Your task to perform on an android device: turn smart compose on in the gmail app Image 0: 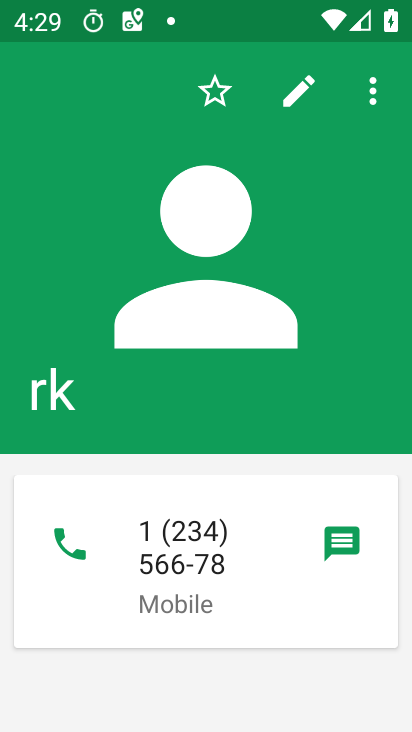
Step 0: press back button
Your task to perform on an android device: turn smart compose on in the gmail app Image 1: 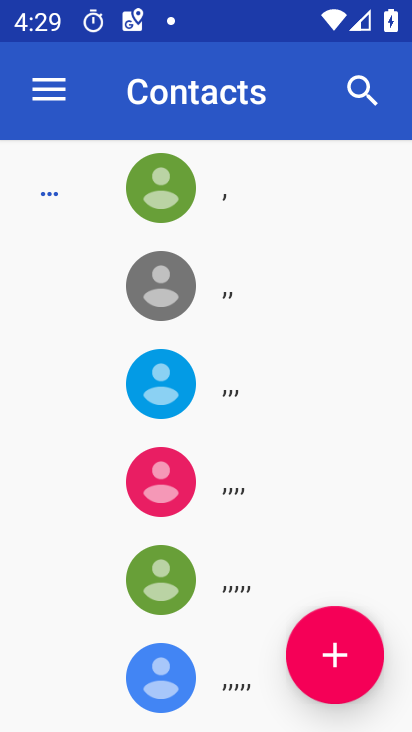
Step 1: press back button
Your task to perform on an android device: turn smart compose on in the gmail app Image 2: 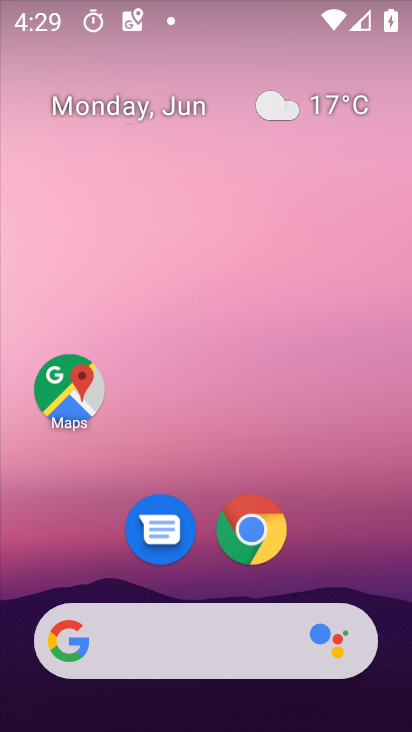
Step 2: drag from (326, 538) to (236, 80)
Your task to perform on an android device: turn smart compose on in the gmail app Image 3: 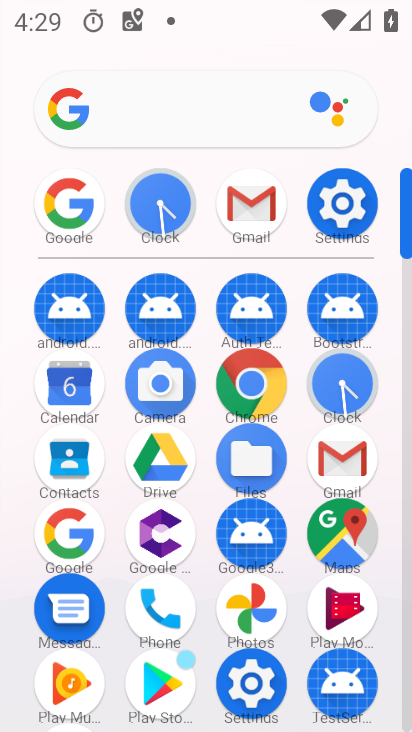
Step 3: click (248, 205)
Your task to perform on an android device: turn smart compose on in the gmail app Image 4: 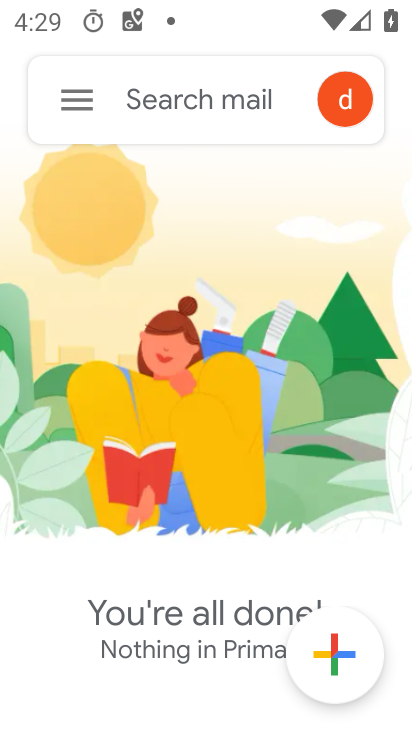
Step 4: click (69, 105)
Your task to perform on an android device: turn smart compose on in the gmail app Image 5: 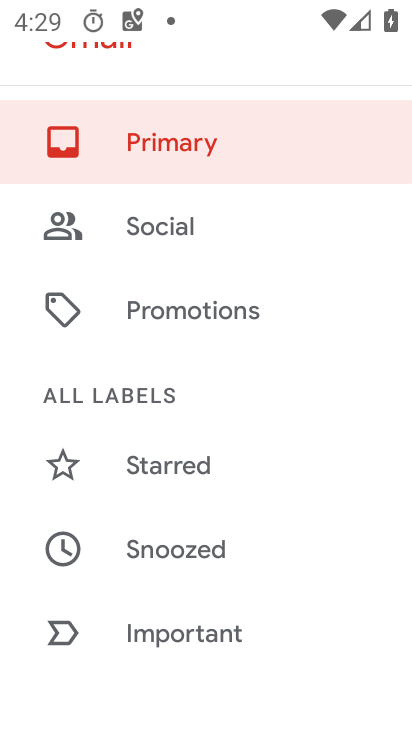
Step 5: drag from (183, 491) to (252, 170)
Your task to perform on an android device: turn smart compose on in the gmail app Image 6: 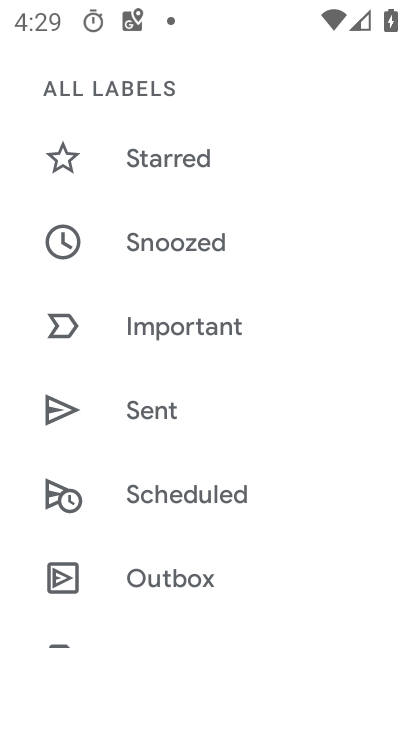
Step 6: drag from (206, 543) to (282, 184)
Your task to perform on an android device: turn smart compose on in the gmail app Image 7: 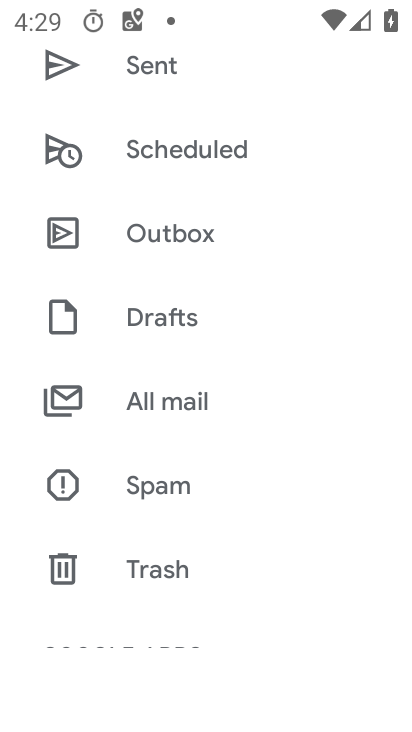
Step 7: drag from (184, 513) to (280, 161)
Your task to perform on an android device: turn smart compose on in the gmail app Image 8: 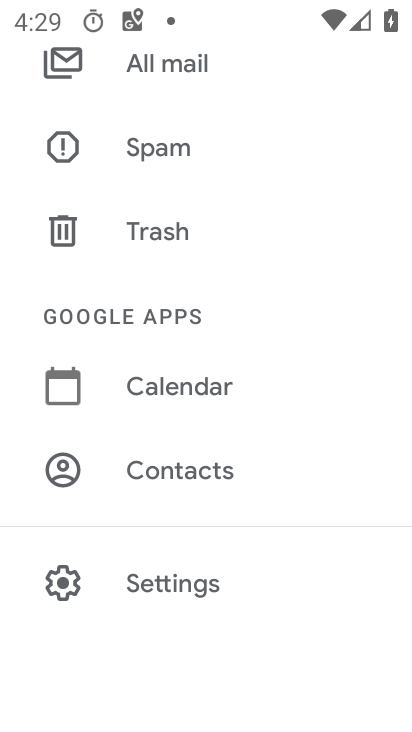
Step 8: click (180, 577)
Your task to perform on an android device: turn smart compose on in the gmail app Image 9: 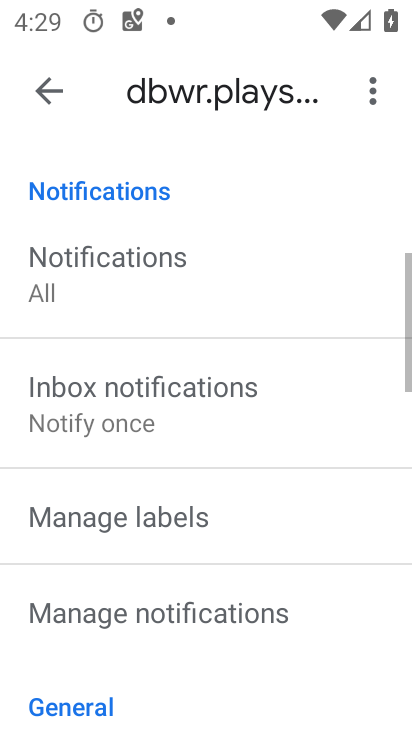
Step 9: task complete